Your task to perform on an android device: open app "Google Pay: Save, Pay, Manage" Image 0: 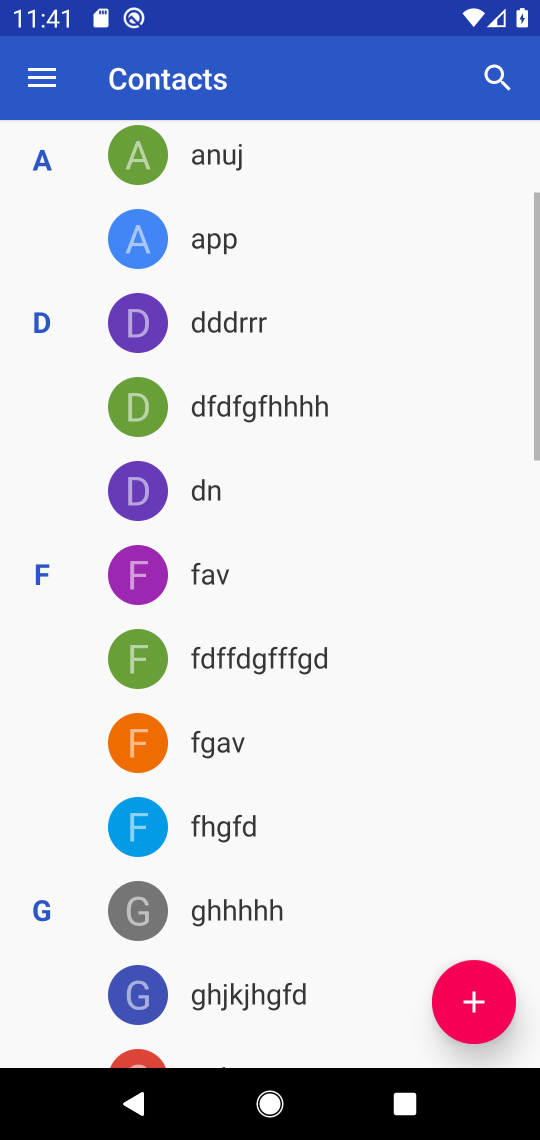
Step 0: click (199, 113)
Your task to perform on an android device: open app "Google Pay: Save, Pay, Manage" Image 1: 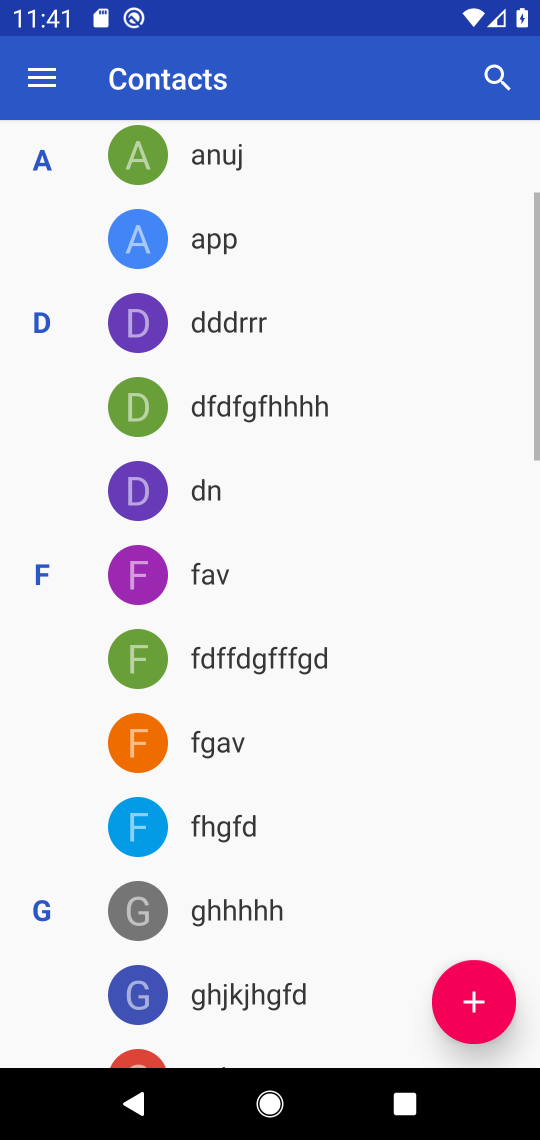
Step 1: task complete